Your task to perform on an android device: toggle priority inbox in the gmail app Image 0: 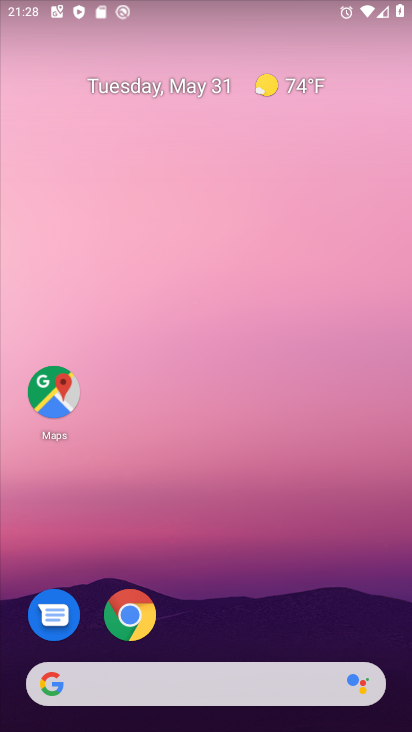
Step 0: drag from (206, 621) to (233, 176)
Your task to perform on an android device: toggle priority inbox in the gmail app Image 1: 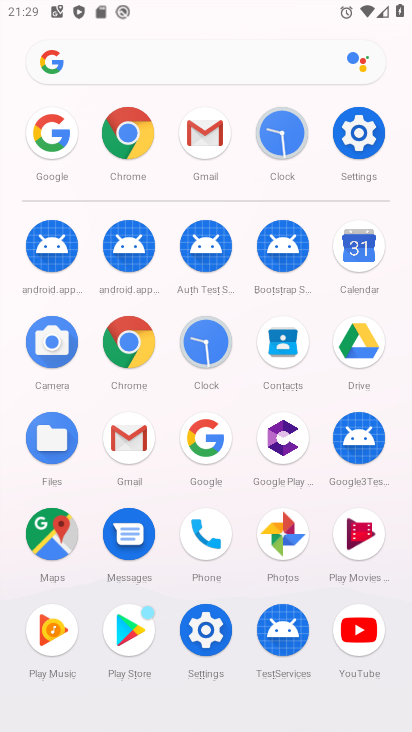
Step 1: click (196, 148)
Your task to perform on an android device: toggle priority inbox in the gmail app Image 2: 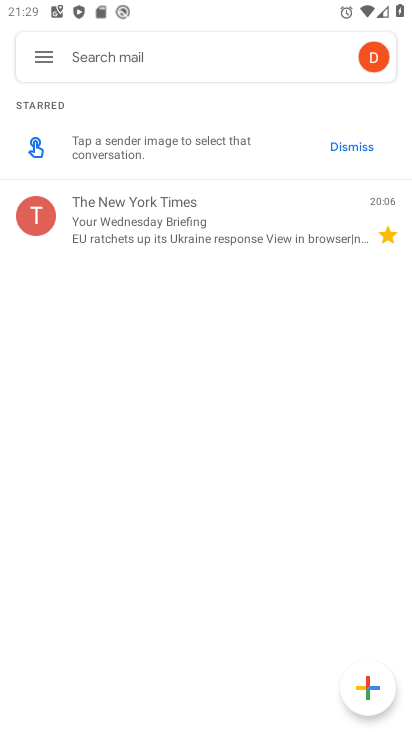
Step 2: click (48, 55)
Your task to perform on an android device: toggle priority inbox in the gmail app Image 3: 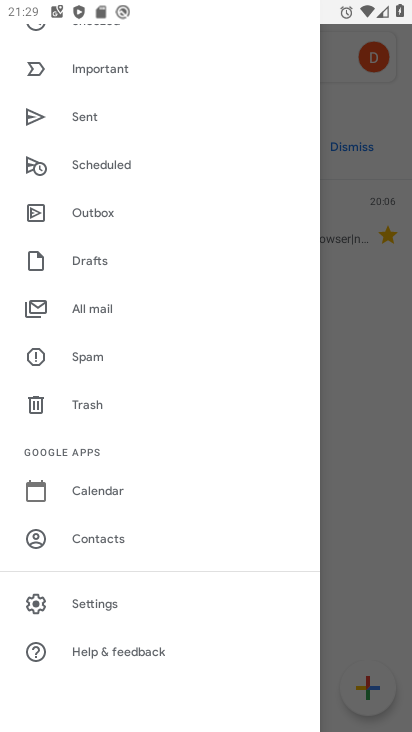
Step 3: click (116, 607)
Your task to perform on an android device: toggle priority inbox in the gmail app Image 4: 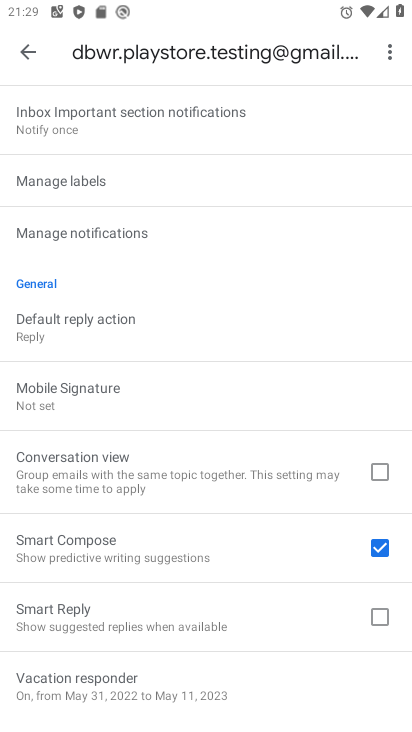
Step 4: click (226, 610)
Your task to perform on an android device: toggle priority inbox in the gmail app Image 5: 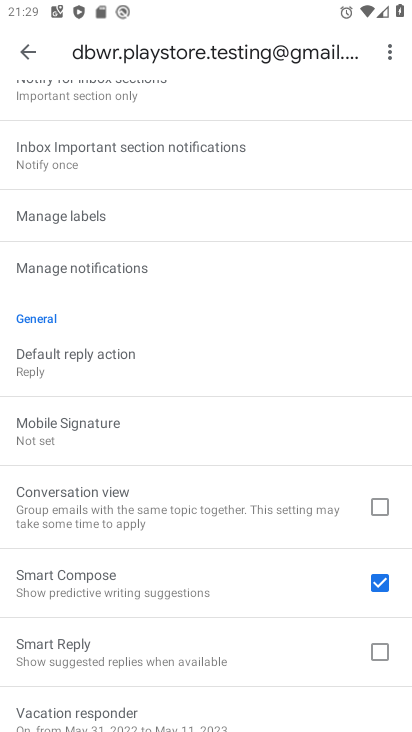
Step 5: drag from (225, 260) to (225, 504)
Your task to perform on an android device: toggle priority inbox in the gmail app Image 6: 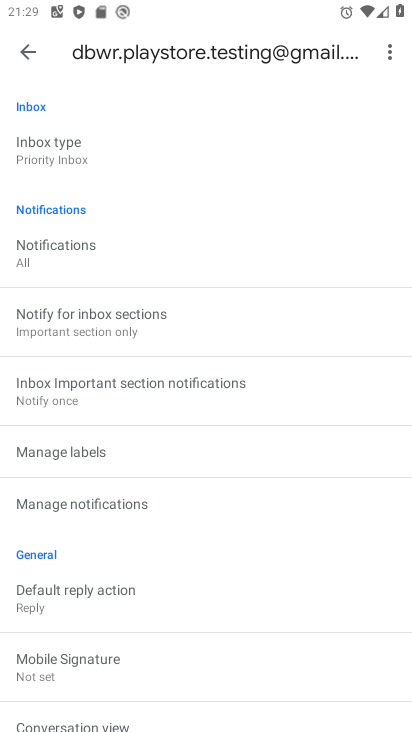
Step 6: click (155, 152)
Your task to perform on an android device: toggle priority inbox in the gmail app Image 7: 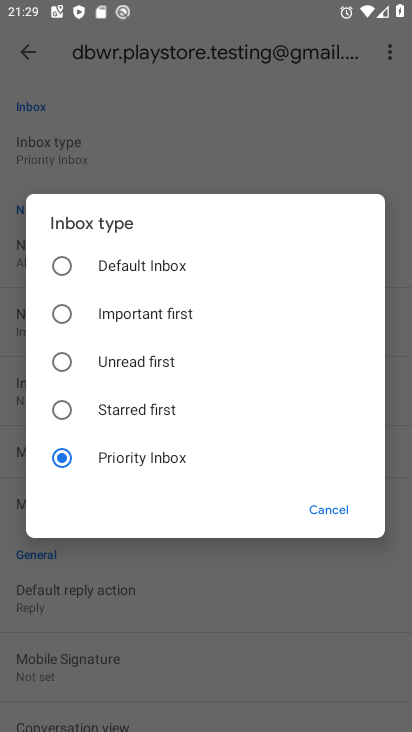
Step 7: click (145, 275)
Your task to perform on an android device: toggle priority inbox in the gmail app Image 8: 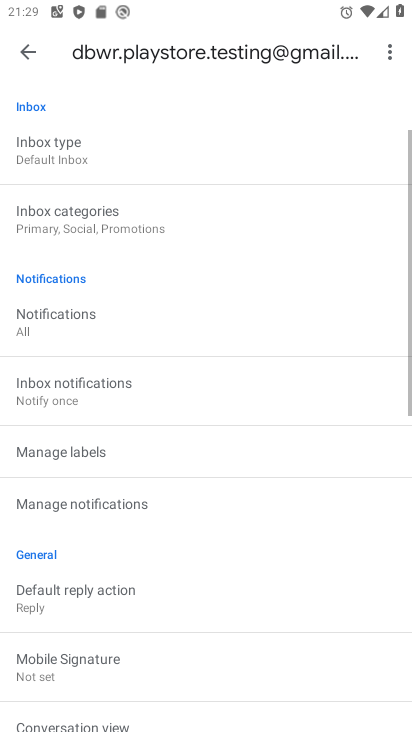
Step 8: task complete